Your task to perform on an android device: Clear the cart on ebay. Add "acer nitro" to the cart on ebay, then select checkout. Image 0: 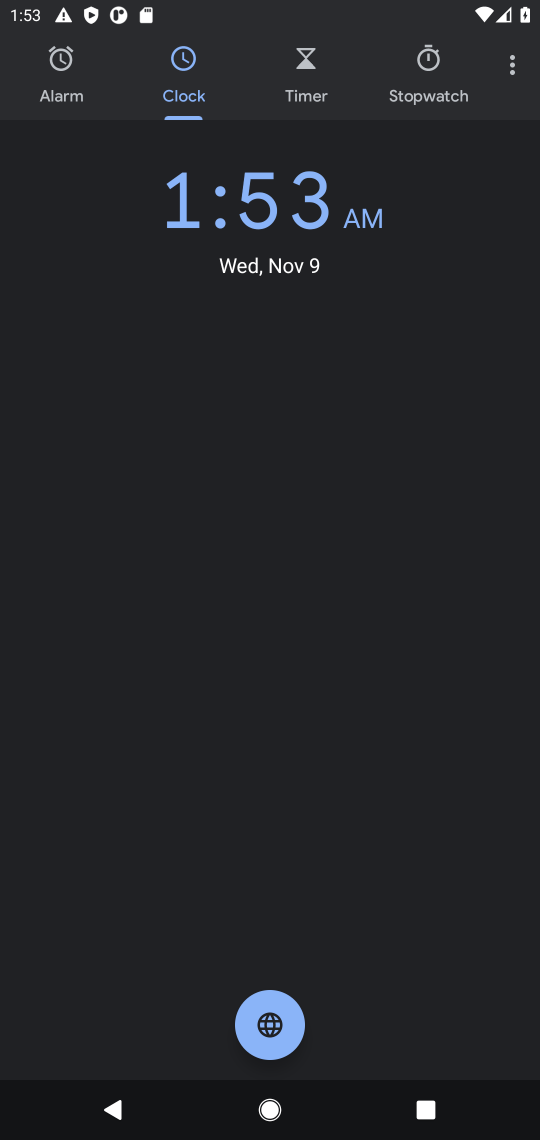
Step 0: press home button
Your task to perform on an android device: Clear the cart on ebay. Add "acer nitro" to the cart on ebay, then select checkout. Image 1: 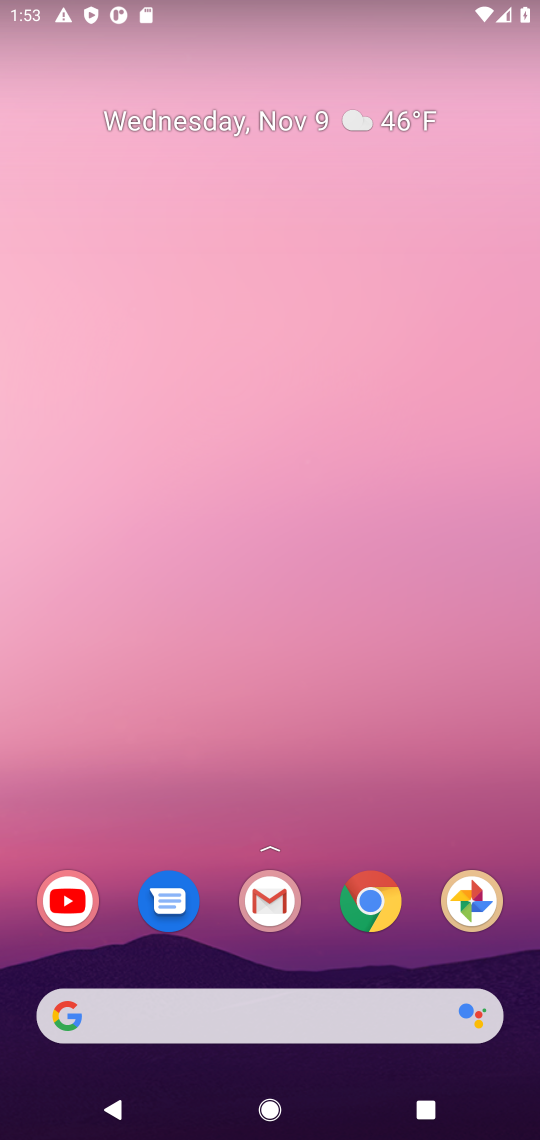
Step 1: click (378, 906)
Your task to perform on an android device: Clear the cart on ebay. Add "acer nitro" to the cart on ebay, then select checkout. Image 2: 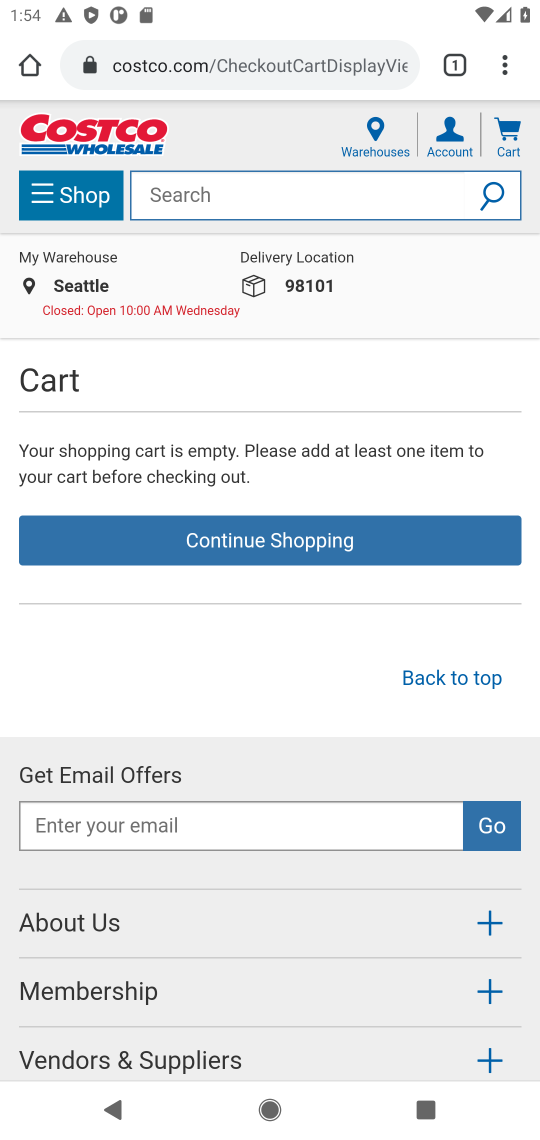
Step 2: click (268, 54)
Your task to perform on an android device: Clear the cart on ebay. Add "acer nitro" to the cart on ebay, then select checkout. Image 3: 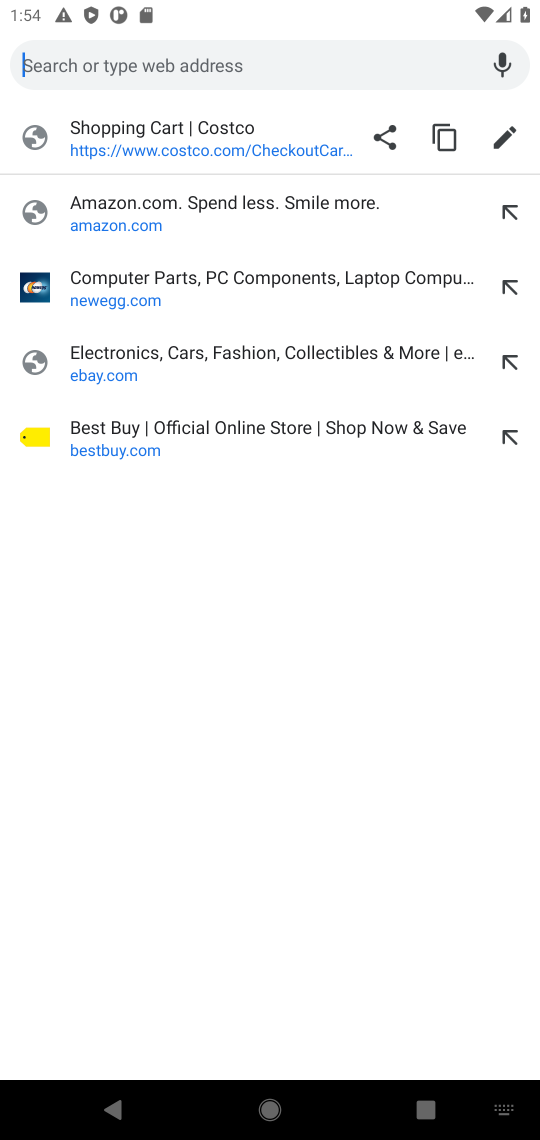
Step 3: type "ebay"
Your task to perform on an android device: Clear the cart on ebay. Add "acer nitro" to the cart on ebay, then select checkout. Image 4: 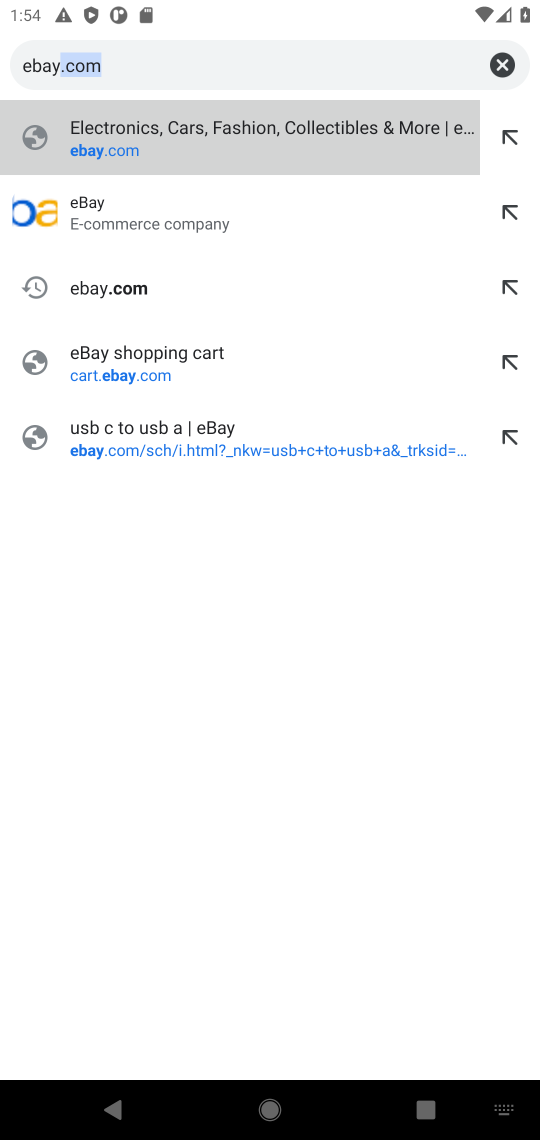
Step 4: click (371, 79)
Your task to perform on an android device: Clear the cart on ebay. Add "acer nitro" to the cart on ebay, then select checkout. Image 5: 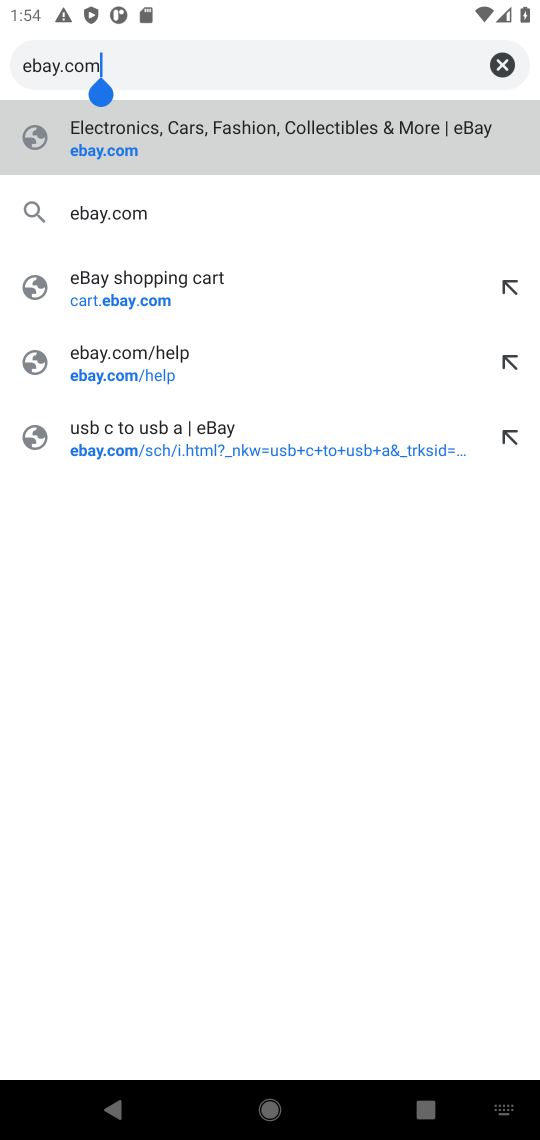
Step 5: click (134, 205)
Your task to perform on an android device: Clear the cart on ebay. Add "acer nitro" to the cart on ebay, then select checkout. Image 6: 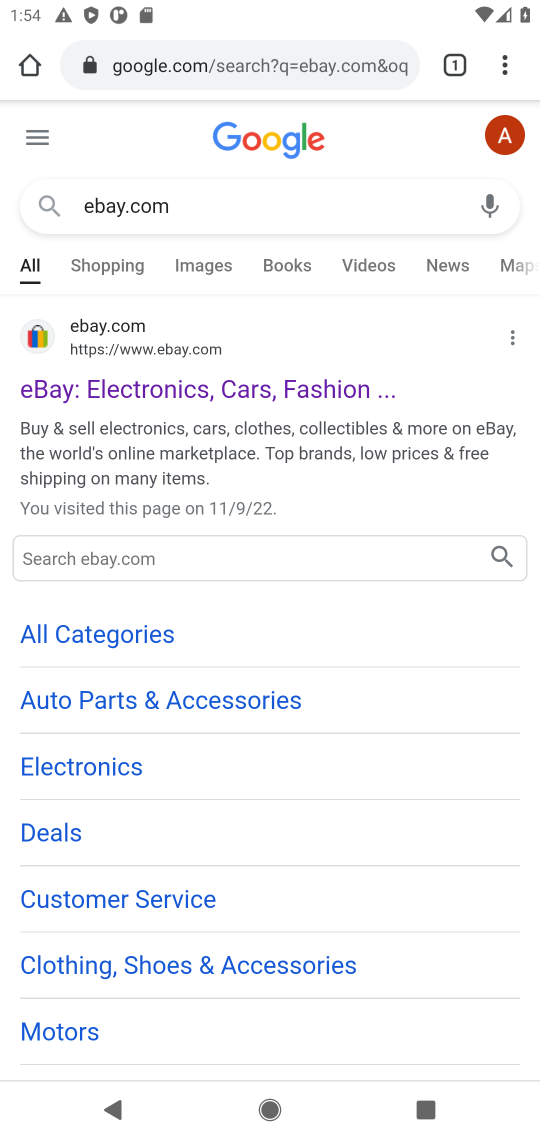
Step 6: click (206, 344)
Your task to perform on an android device: Clear the cart on ebay. Add "acer nitro" to the cart on ebay, then select checkout. Image 7: 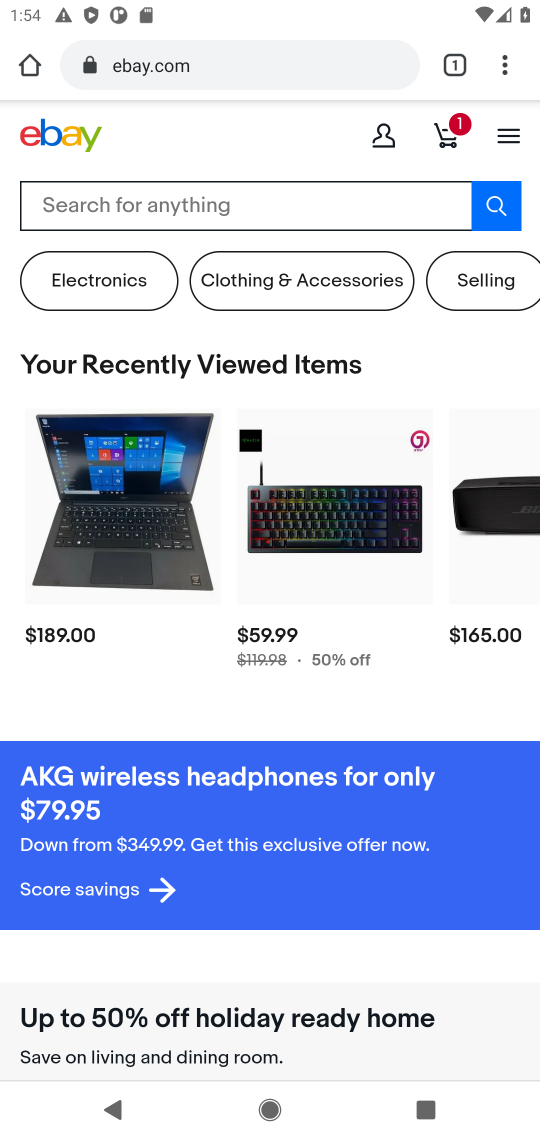
Step 7: click (449, 131)
Your task to perform on an android device: Clear the cart on ebay. Add "acer nitro" to the cart on ebay, then select checkout. Image 8: 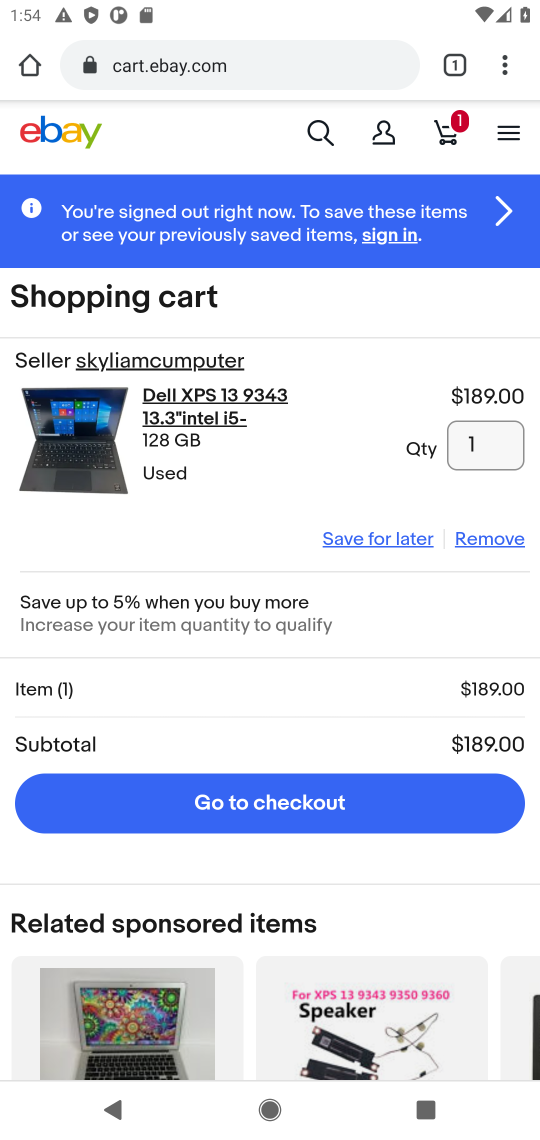
Step 8: click (494, 535)
Your task to perform on an android device: Clear the cart on ebay. Add "acer nitro" to the cart on ebay, then select checkout. Image 9: 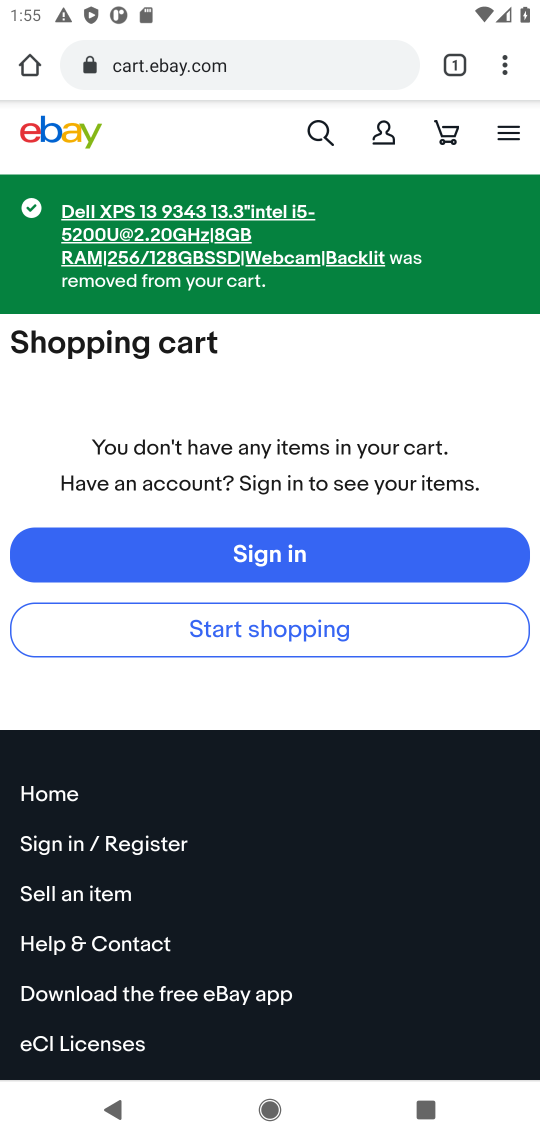
Step 9: click (324, 127)
Your task to perform on an android device: Clear the cart on ebay. Add "acer nitro" to the cart on ebay, then select checkout. Image 10: 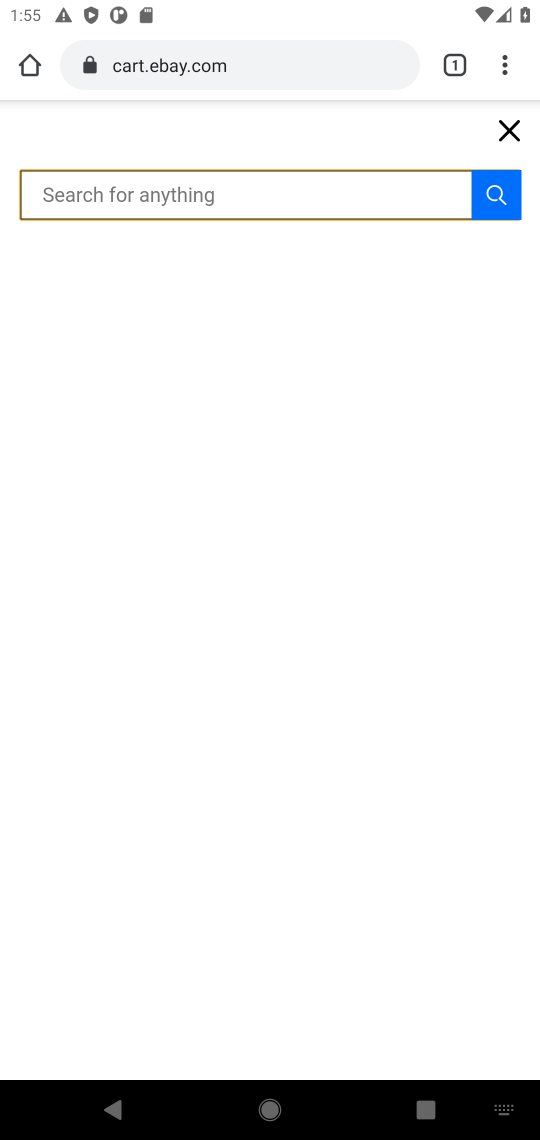
Step 10: type "acer nitro"
Your task to perform on an android device: Clear the cart on ebay. Add "acer nitro" to the cart on ebay, then select checkout. Image 11: 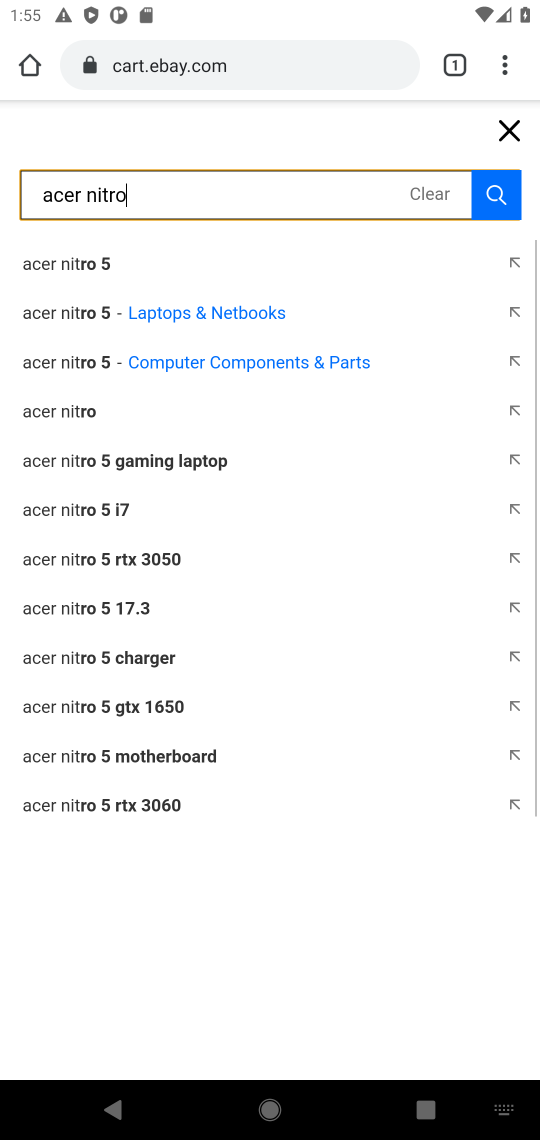
Step 11: press enter
Your task to perform on an android device: Clear the cart on ebay. Add "acer nitro" to the cart on ebay, then select checkout. Image 12: 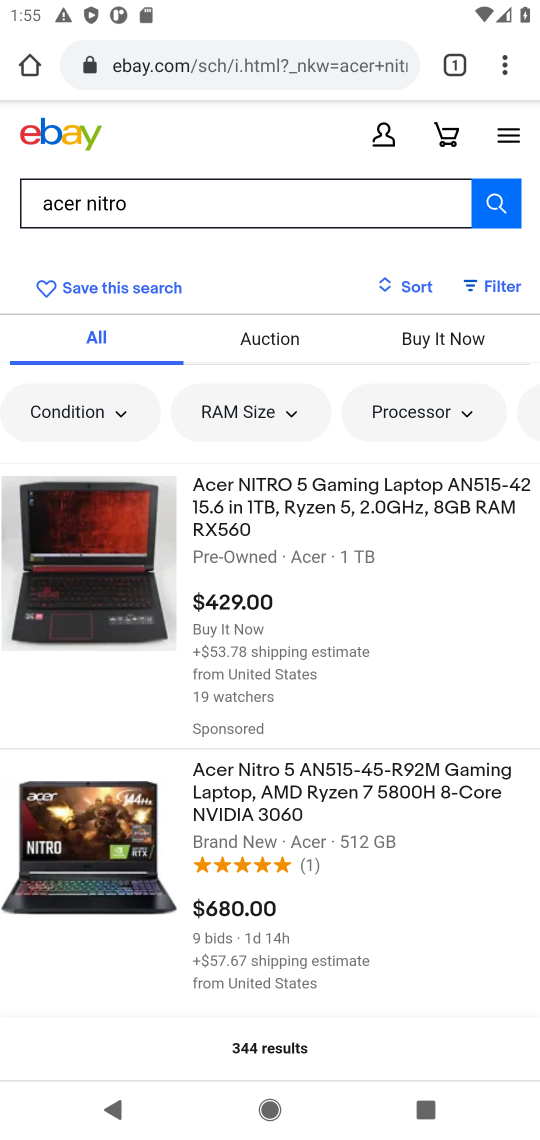
Step 12: drag from (435, 899) to (426, 498)
Your task to perform on an android device: Clear the cart on ebay. Add "acer nitro" to the cart on ebay, then select checkout. Image 13: 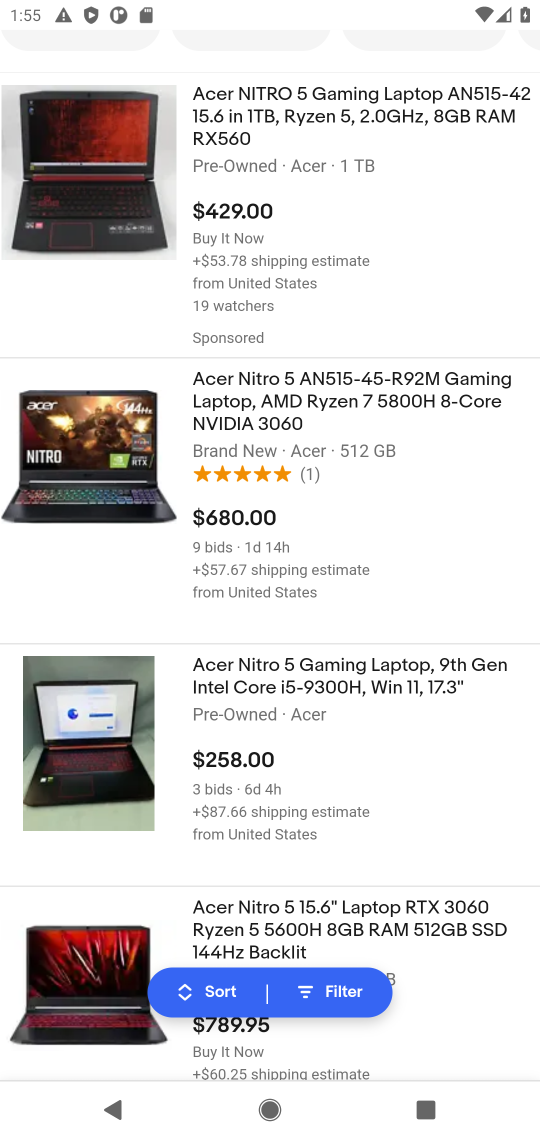
Step 13: drag from (368, 762) to (336, 316)
Your task to perform on an android device: Clear the cart on ebay. Add "acer nitro" to the cart on ebay, then select checkout. Image 14: 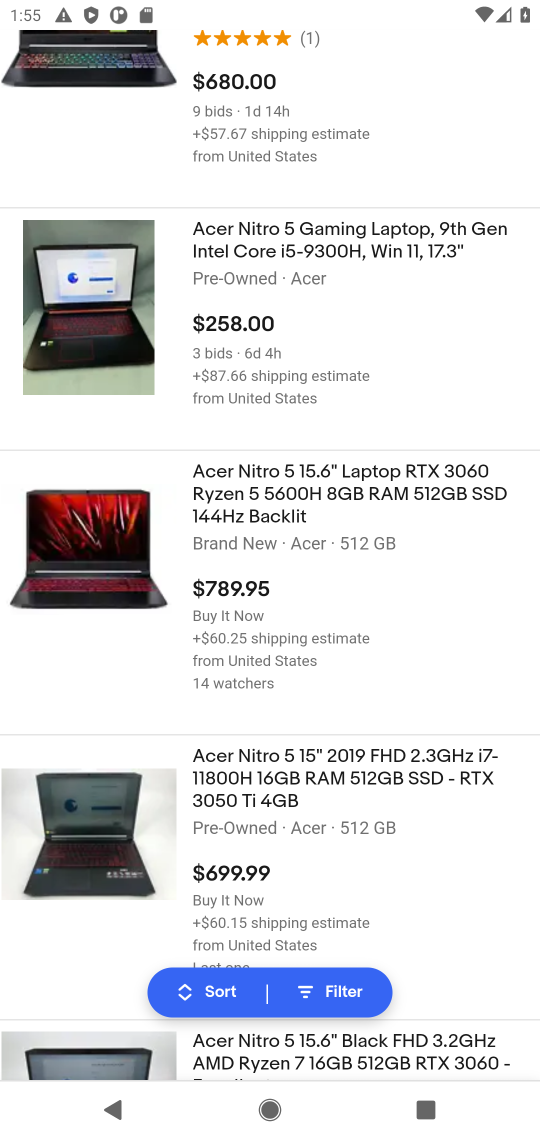
Step 14: drag from (413, 634) to (413, 305)
Your task to perform on an android device: Clear the cart on ebay. Add "acer nitro" to the cart on ebay, then select checkout. Image 15: 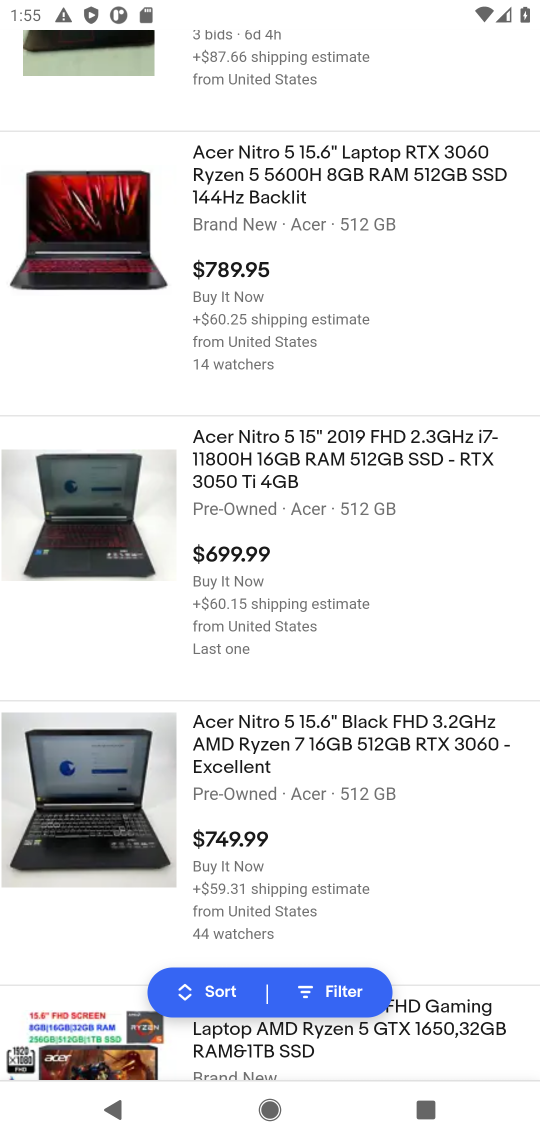
Step 15: drag from (435, 848) to (414, 500)
Your task to perform on an android device: Clear the cart on ebay. Add "acer nitro" to the cart on ebay, then select checkout. Image 16: 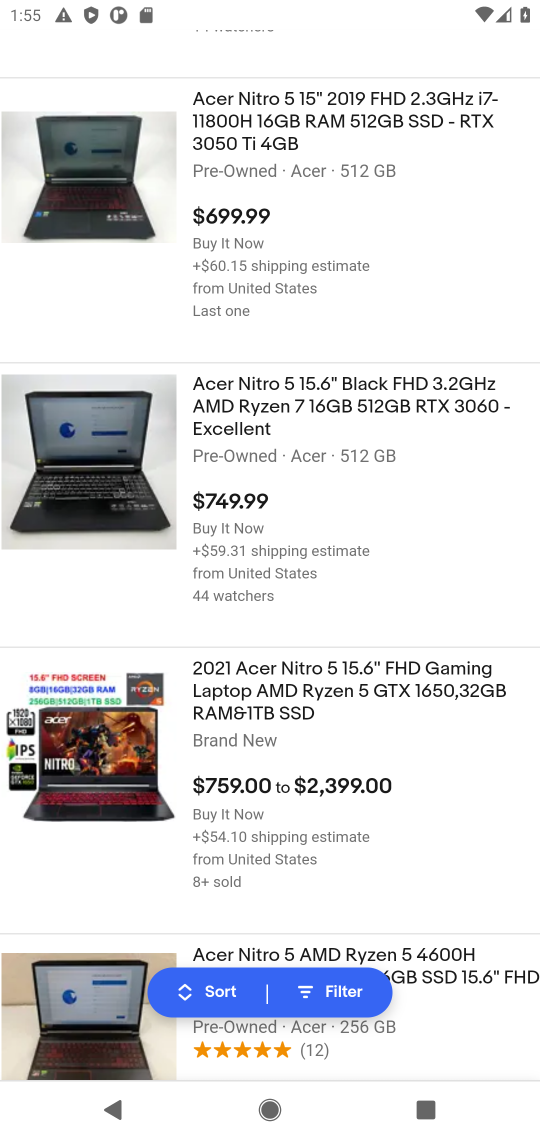
Step 16: drag from (438, 806) to (454, 362)
Your task to perform on an android device: Clear the cart on ebay. Add "acer nitro" to the cart on ebay, then select checkout. Image 17: 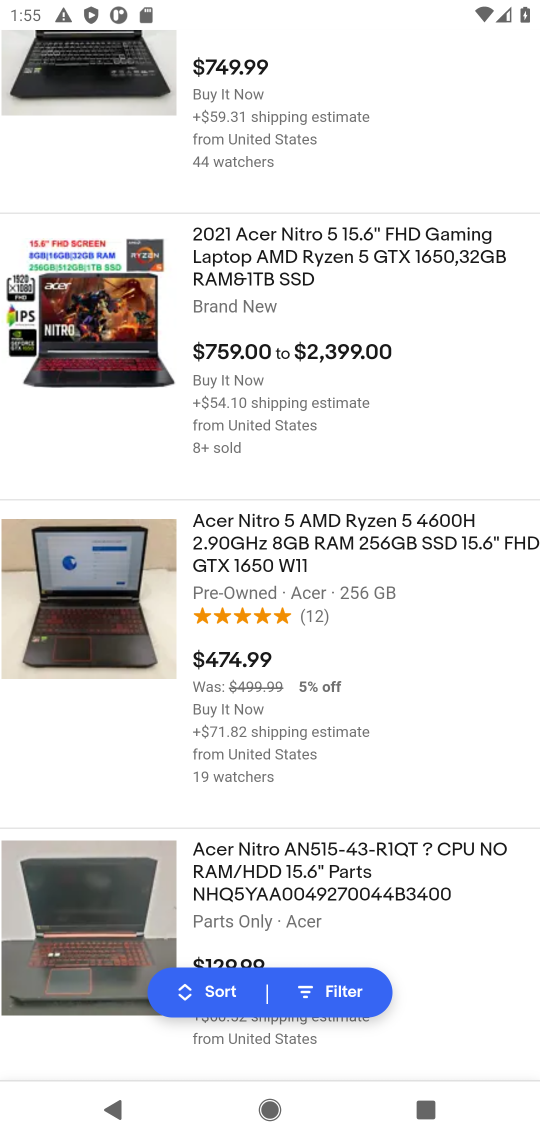
Step 17: click (91, 597)
Your task to perform on an android device: Clear the cart on ebay. Add "acer nitro" to the cart on ebay, then select checkout. Image 18: 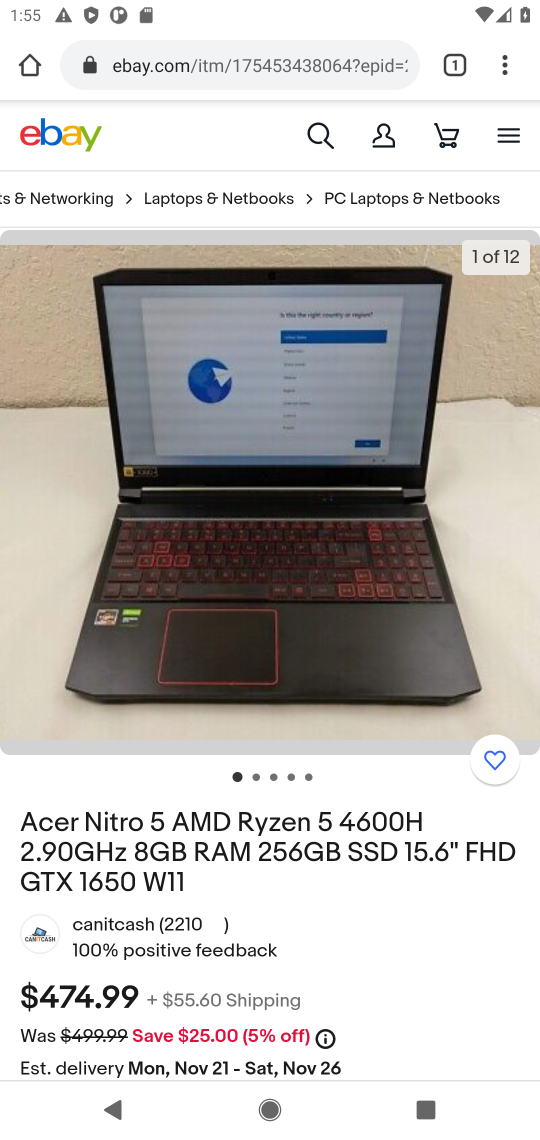
Step 18: drag from (356, 944) to (370, 442)
Your task to perform on an android device: Clear the cart on ebay. Add "acer nitro" to the cart on ebay, then select checkout. Image 19: 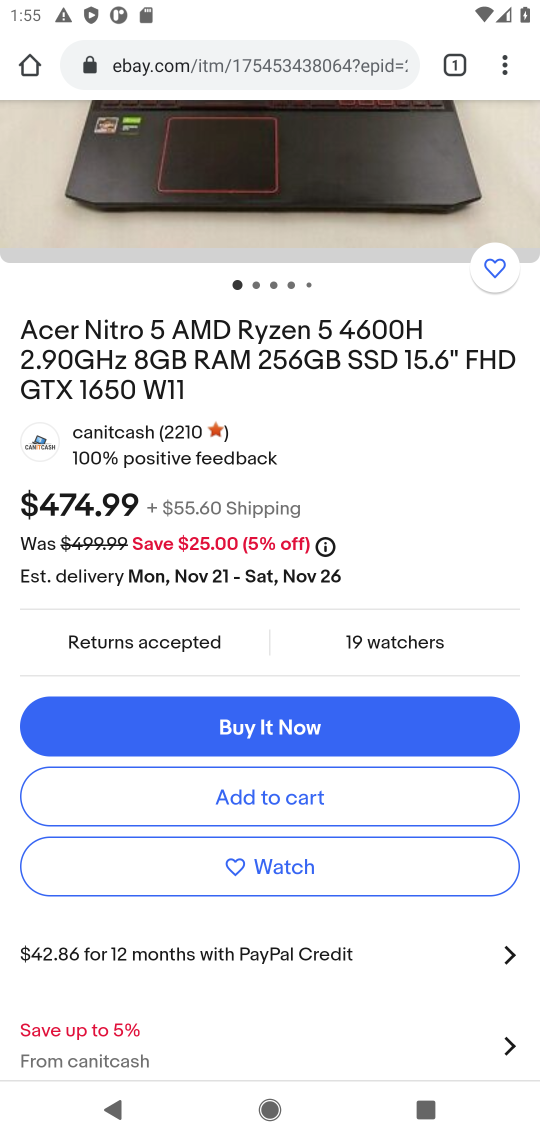
Step 19: click (285, 795)
Your task to perform on an android device: Clear the cart on ebay. Add "acer nitro" to the cart on ebay, then select checkout. Image 20: 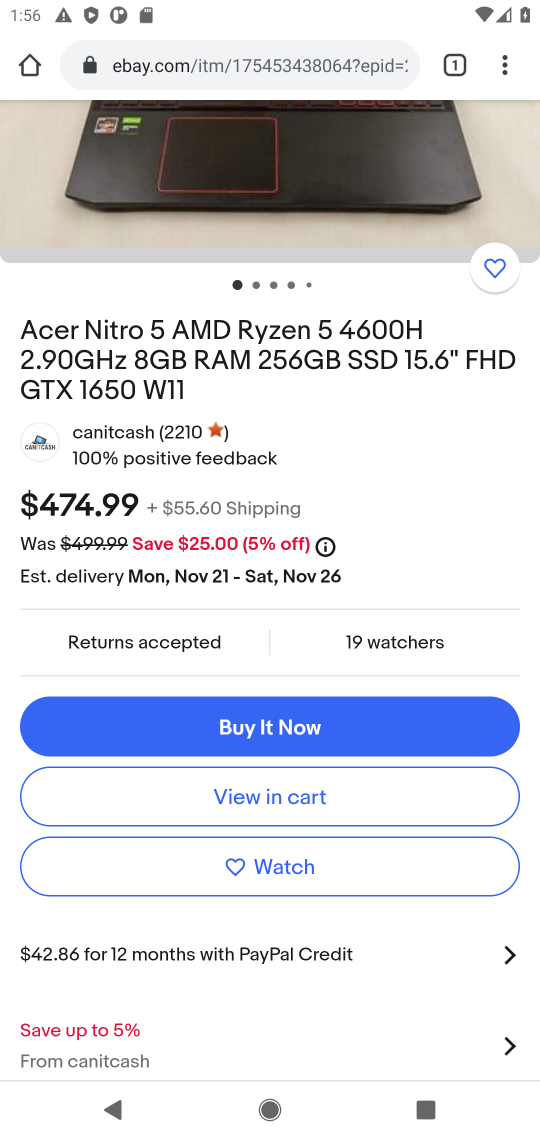
Step 20: click (285, 795)
Your task to perform on an android device: Clear the cart on ebay. Add "acer nitro" to the cart on ebay, then select checkout. Image 21: 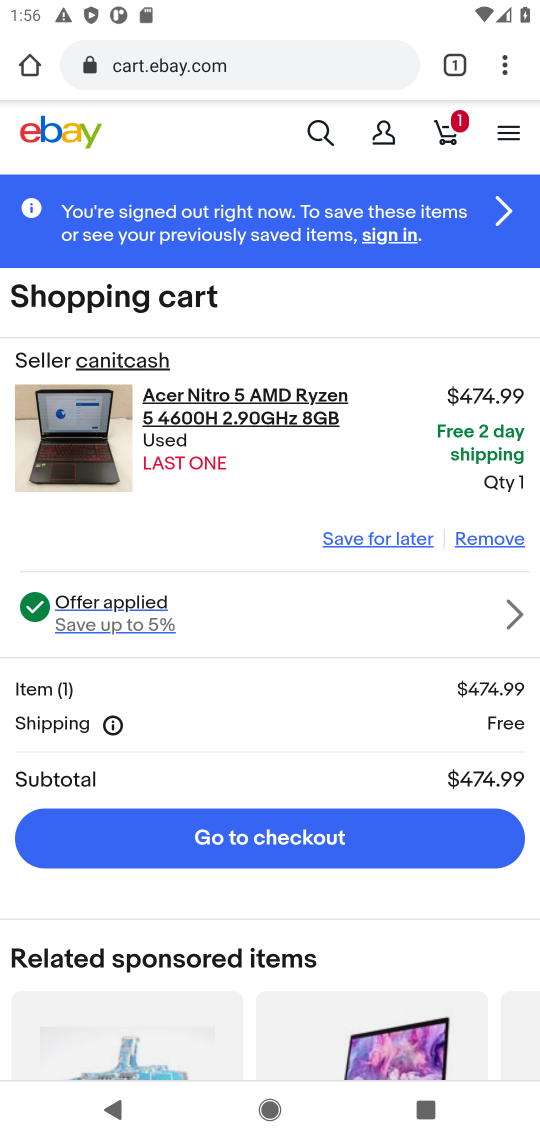
Step 21: click (332, 838)
Your task to perform on an android device: Clear the cart on ebay. Add "acer nitro" to the cart on ebay, then select checkout. Image 22: 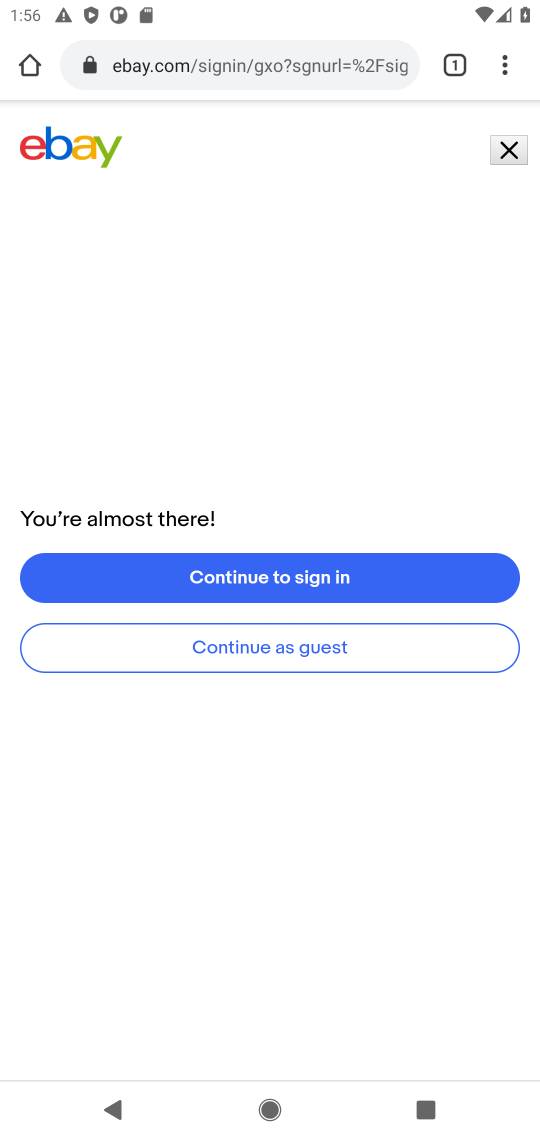
Step 22: task complete